Your task to perform on an android device: Clear the shopping cart on target.com. Image 0: 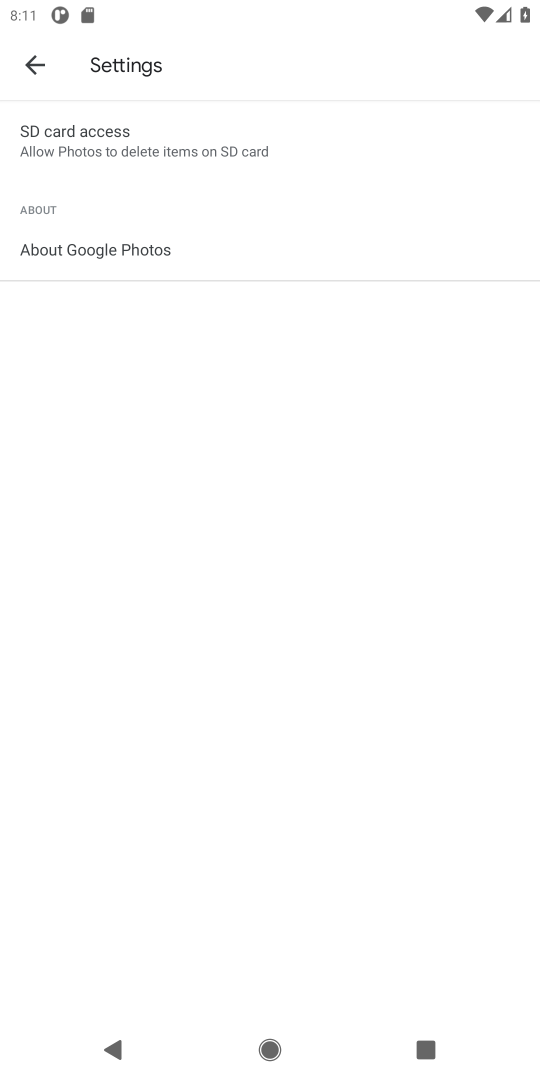
Step 0: press home button
Your task to perform on an android device: Clear the shopping cart on target.com. Image 1: 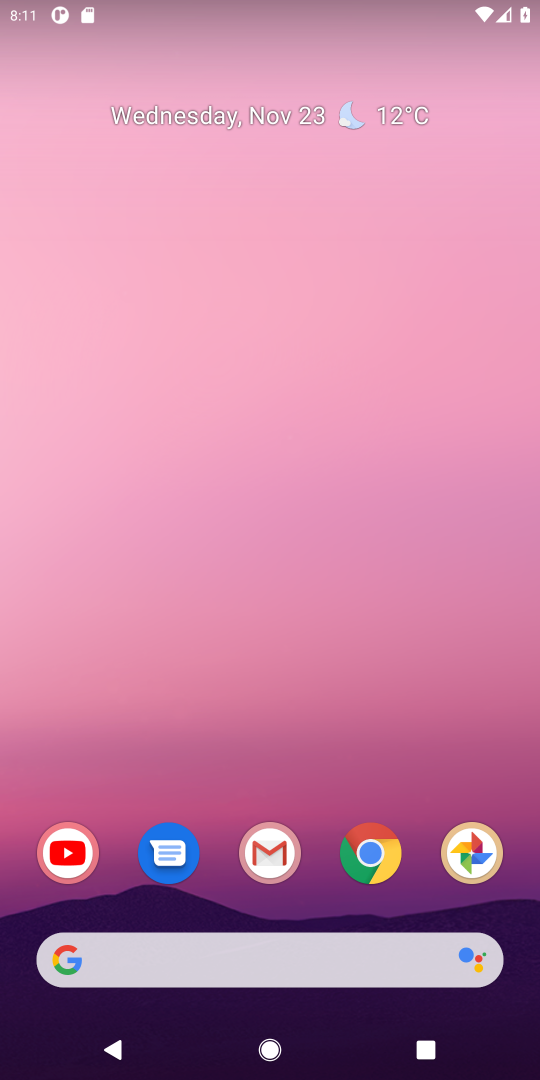
Step 1: click (365, 864)
Your task to perform on an android device: Clear the shopping cart on target.com. Image 2: 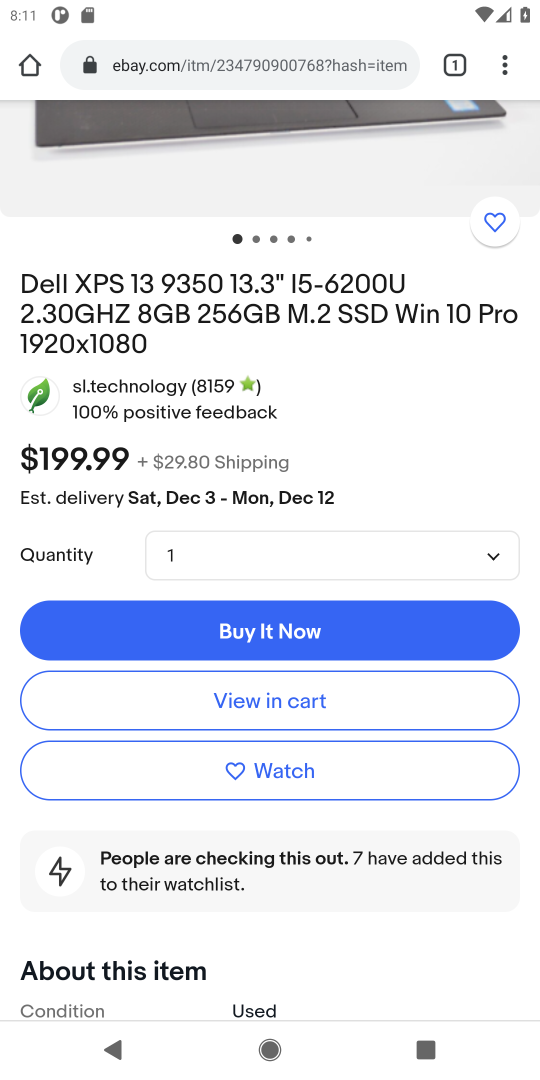
Step 2: click (205, 59)
Your task to perform on an android device: Clear the shopping cart on target.com. Image 3: 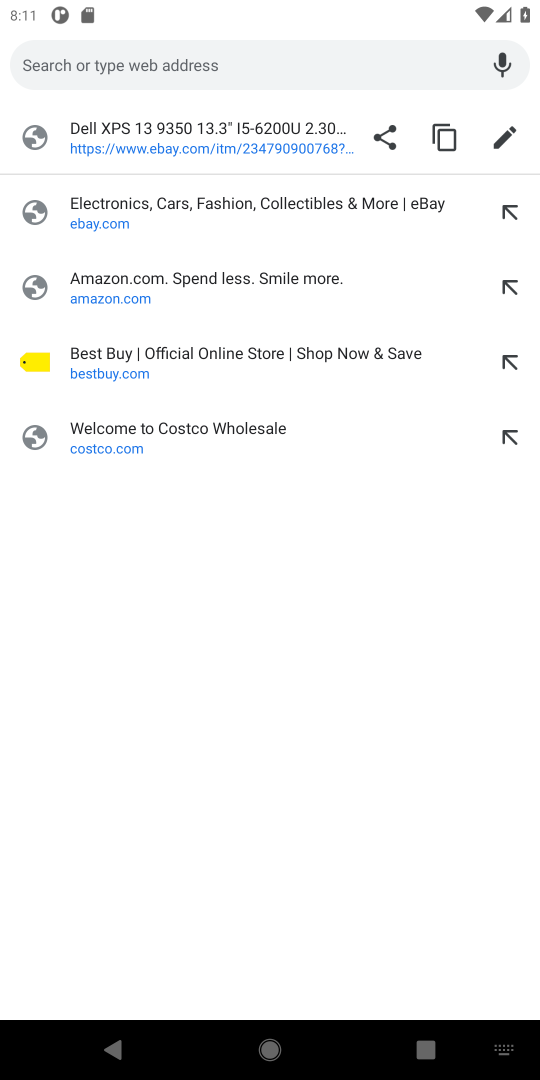
Step 3: type "target.com"
Your task to perform on an android device: Clear the shopping cart on target.com. Image 4: 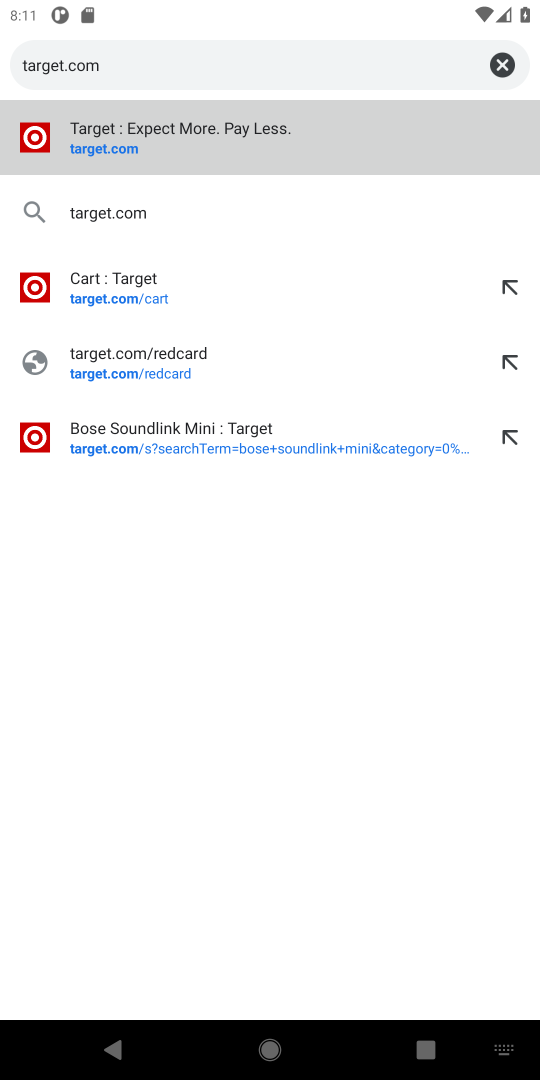
Step 4: click (91, 152)
Your task to perform on an android device: Clear the shopping cart on target.com. Image 5: 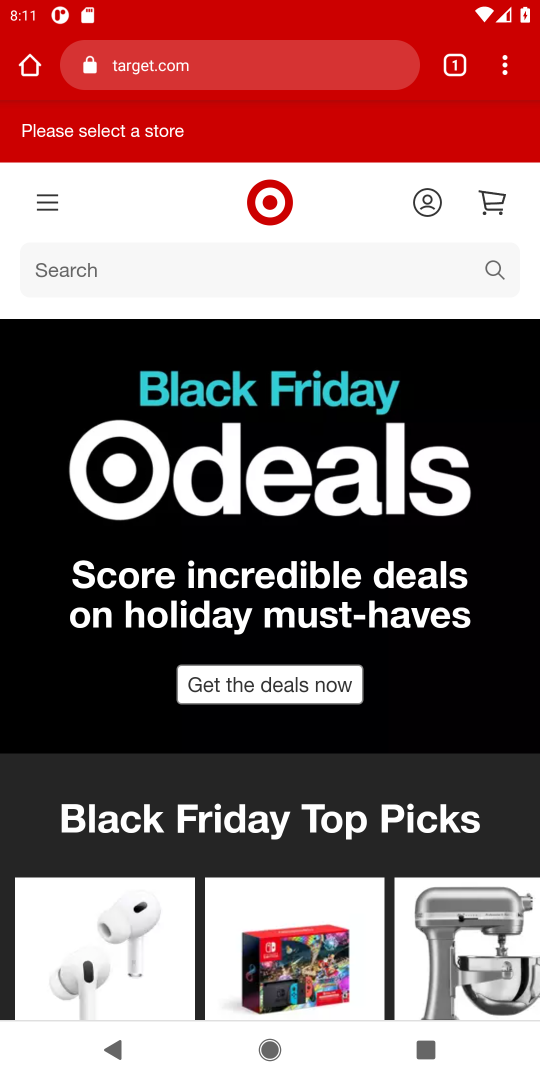
Step 5: click (493, 214)
Your task to perform on an android device: Clear the shopping cart on target.com. Image 6: 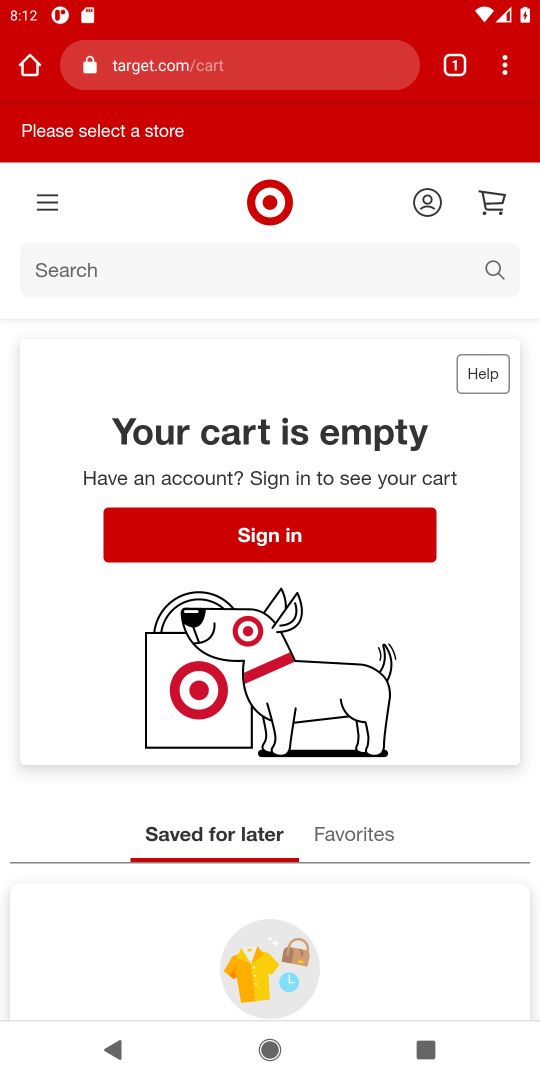
Step 6: task complete